Your task to perform on an android device: Do I have any events this weekend? Image 0: 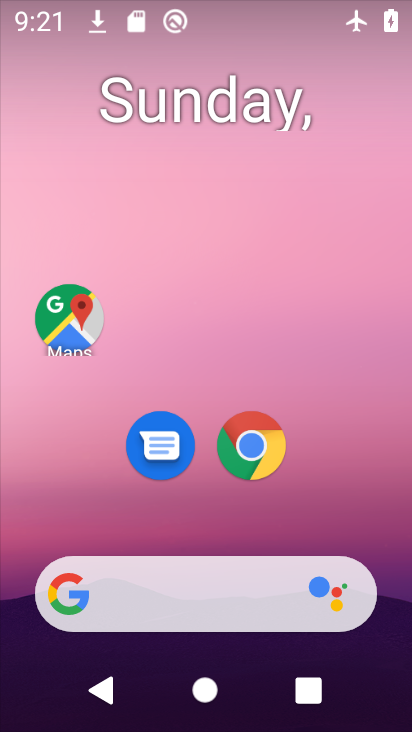
Step 0: drag from (368, 527) to (282, 29)
Your task to perform on an android device: Do I have any events this weekend? Image 1: 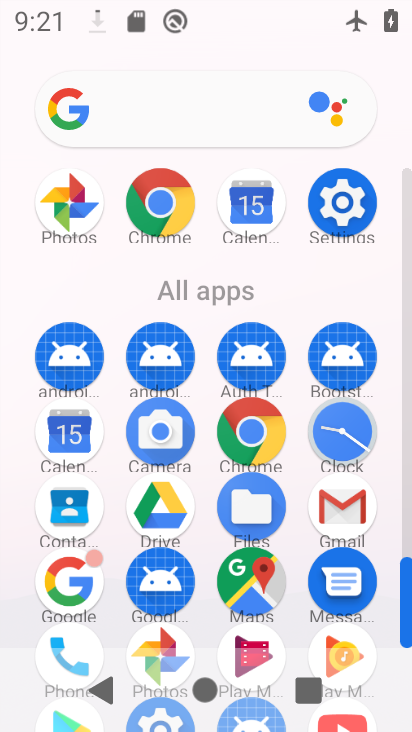
Step 1: drag from (14, 632) to (32, 300)
Your task to perform on an android device: Do I have any events this weekend? Image 2: 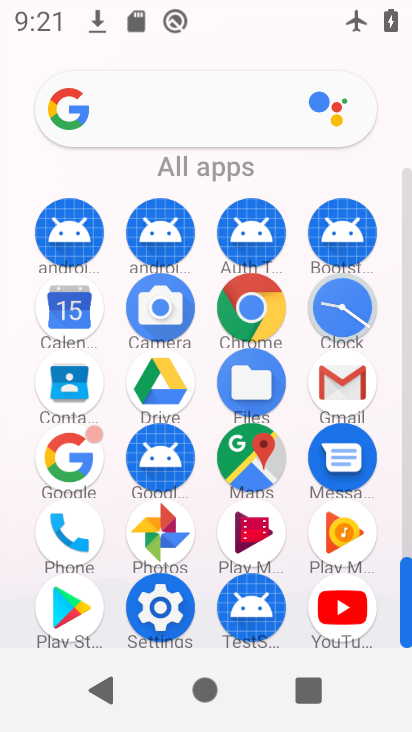
Step 2: click (161, 605)
Your task to perform on an android device: Do I have any events this weekend? Image 3: 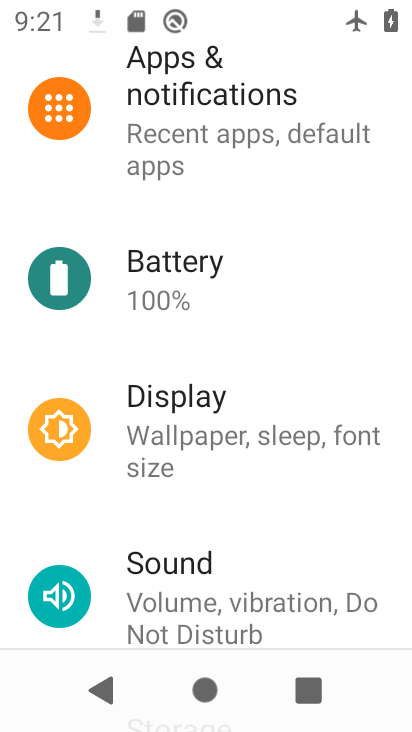
Step 3: drag from (243, 537) to (301, 165)
Your task to perform on an android device: Do I have any events this weekend? Image 4: 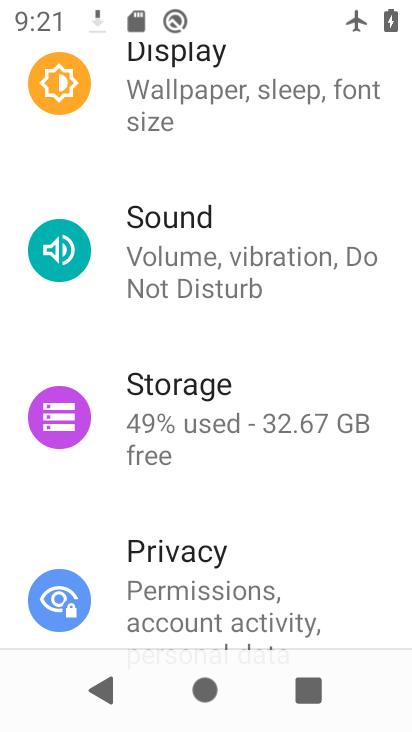
Step 4: drag from (270, 499) to (300, 155)
Your task to perform on an android device: Do I have any events this weekend? Image 5: 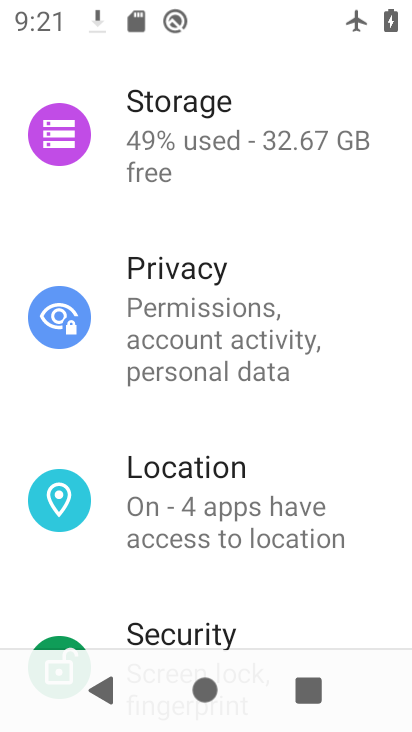
Step 5: press back button
Your task to perform on an android device: Do I have any events this weekend? Image 6: 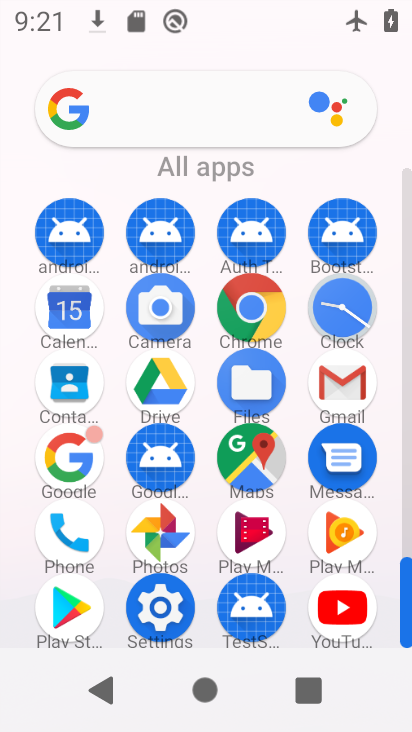
Step 6: click (61, 307)
Your task to perform on an android device: Do I have any events this weekend? Image 7: 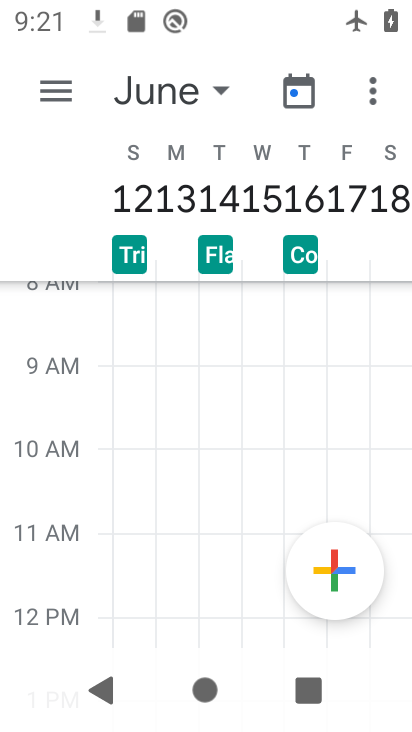
Step 7: click (301, 86)
Your task to perform on an android device: Do I have any events this weekend? Image 8: 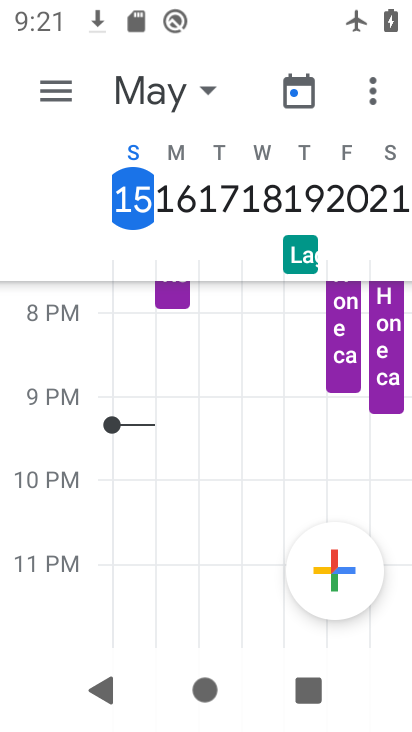
Step 8: click (350, 202)
Your task to perform on an android device: Do I have any events this weekend? Image 9: 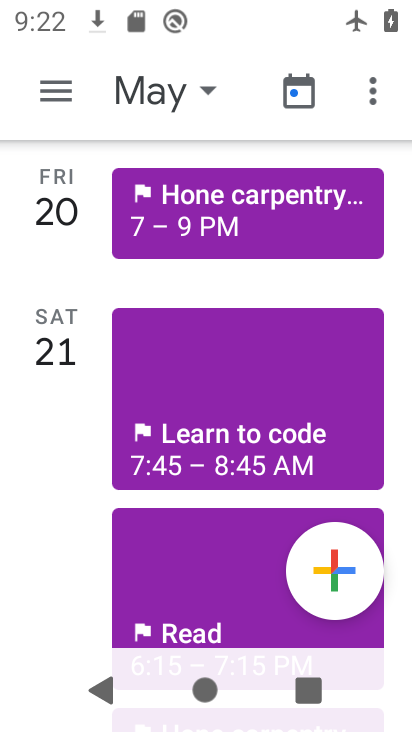
Step 9: task complete